Your task to perform on an android device: Add "logitech g933" to the cart on walmart Image 0: 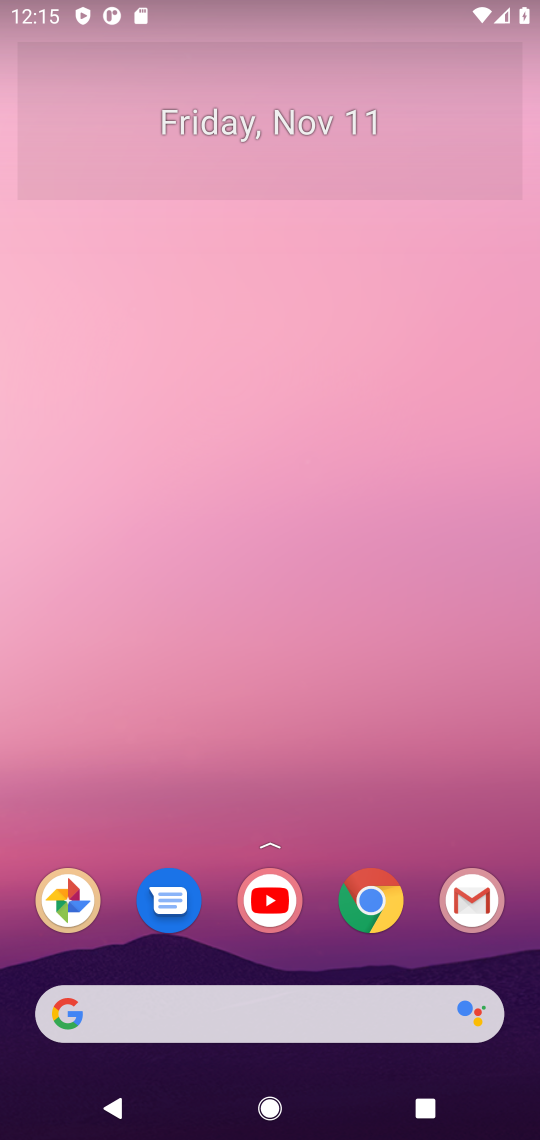
Step 0: click (369, 905)
Your task to perform on an android device: Add "logitech g933" to the cart on walmart Image 1: 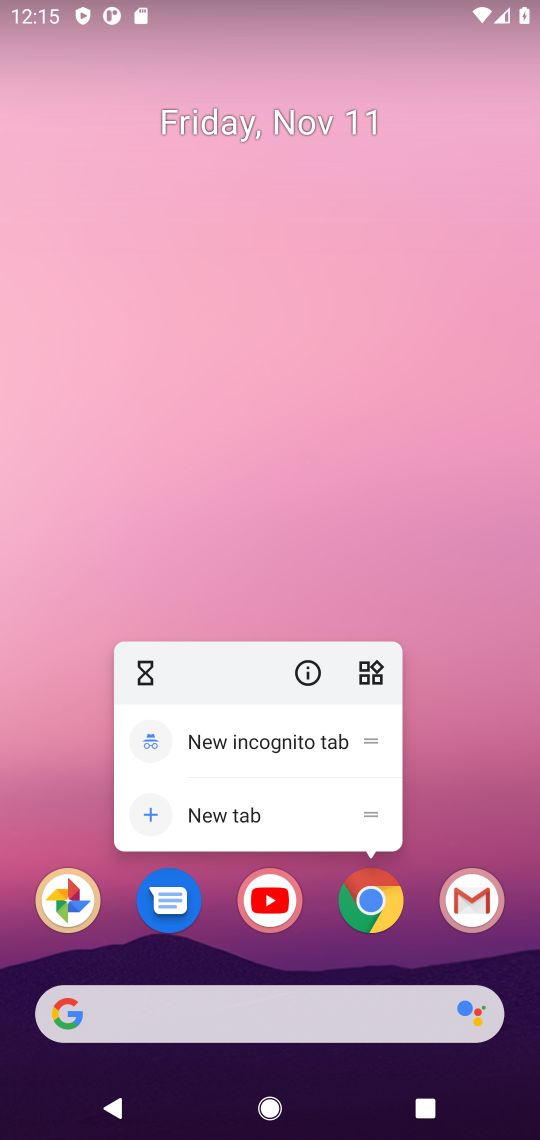
Step 1: click (369, 905)
Your task to perform on an android device: Add "logitech g933" to the cart on walmart Image 2: 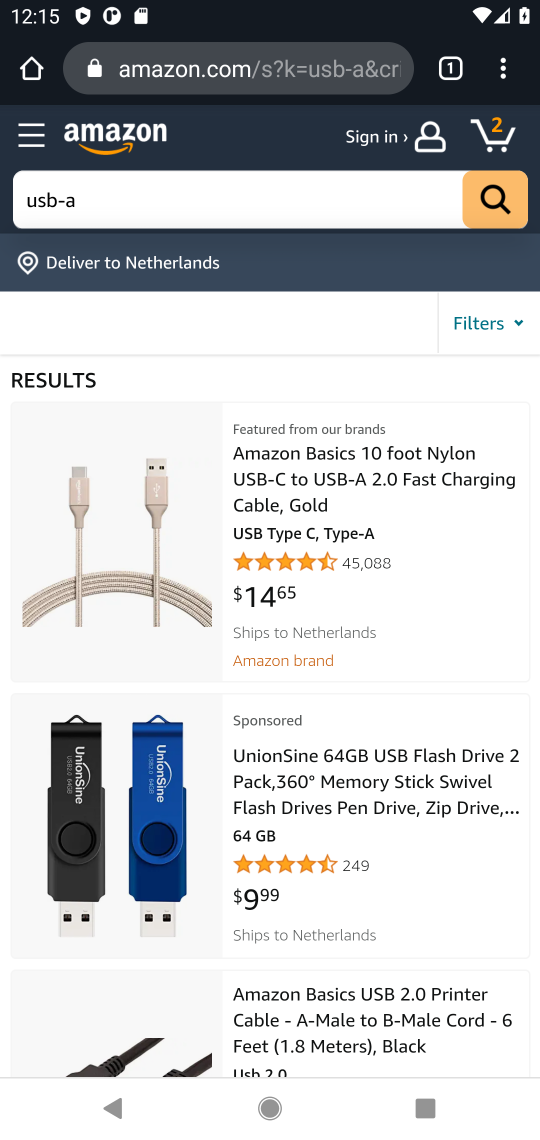
Step 2: click (315, 67)
Your task to perform on an android device: Add "logitech g933" to the cart on walmart Image 3: 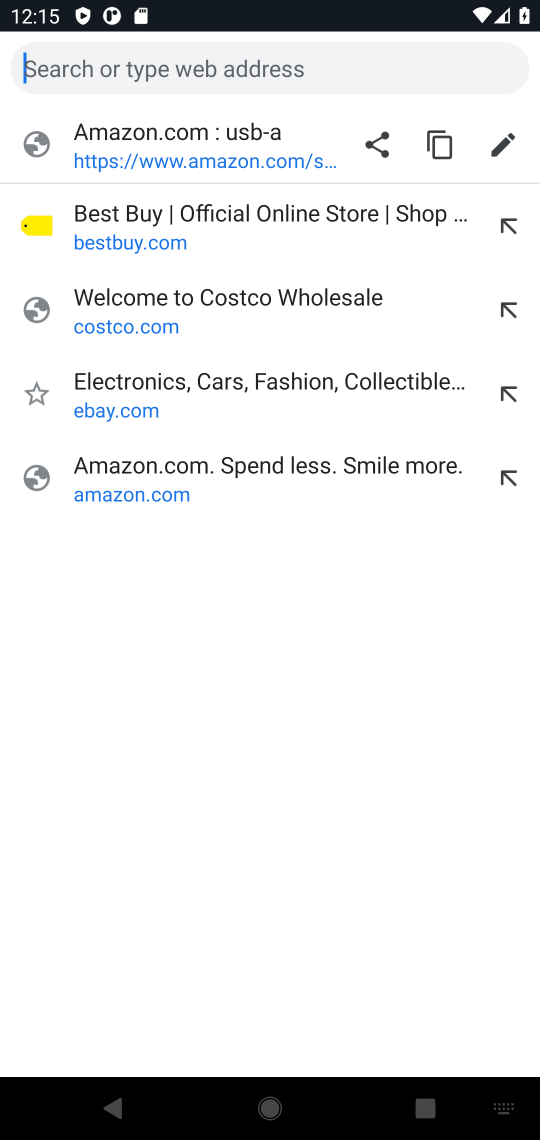
Step 3: type "walmart"
Your task to perform on an android device: Add "logitech g933" to the cart on walmart Image 4: 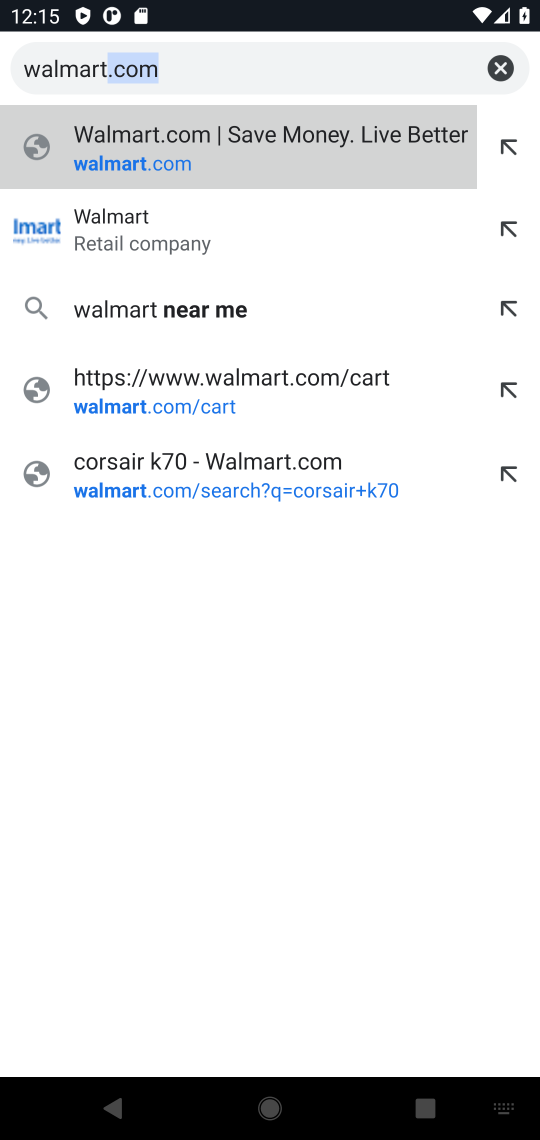
Step 4: press enter
Your task to perform on an android device: Add "logitech g933" to the cart on walmart Image 5: 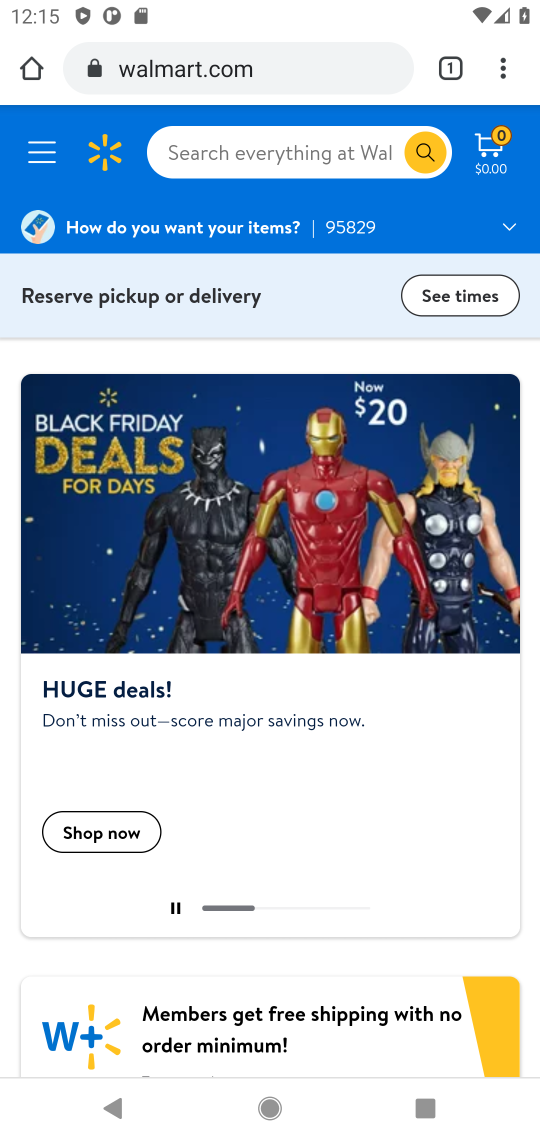
Step 5: click (311, 145)
Your task to perform on an android device: Add "logitech g933" to the cart on walmart Image 6: 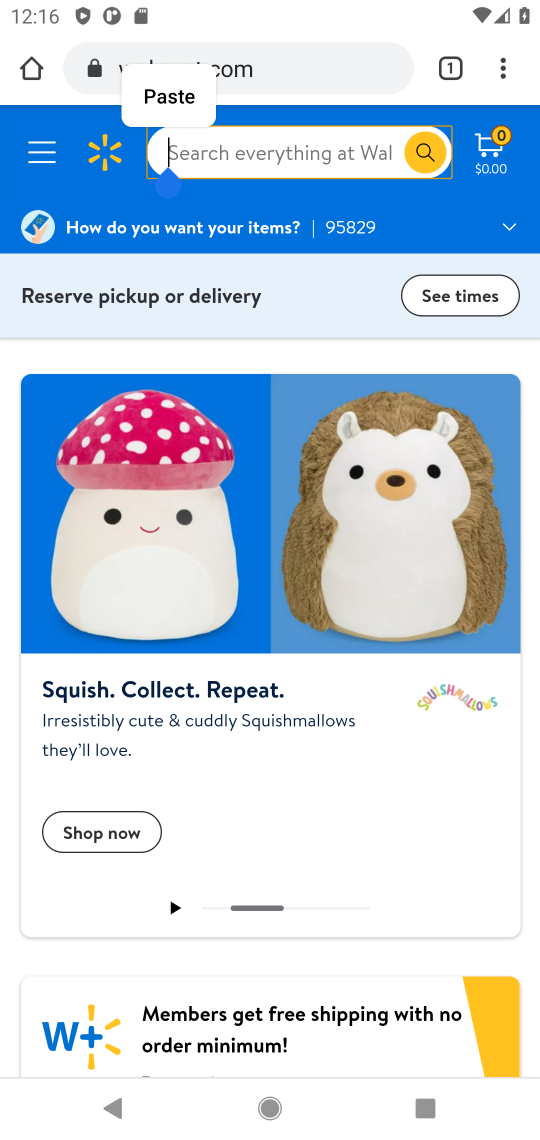
Step 6: type "logitech g933"
Your task to perform on an android device: Add "logitech g933" to the cart on walmart Image 7: 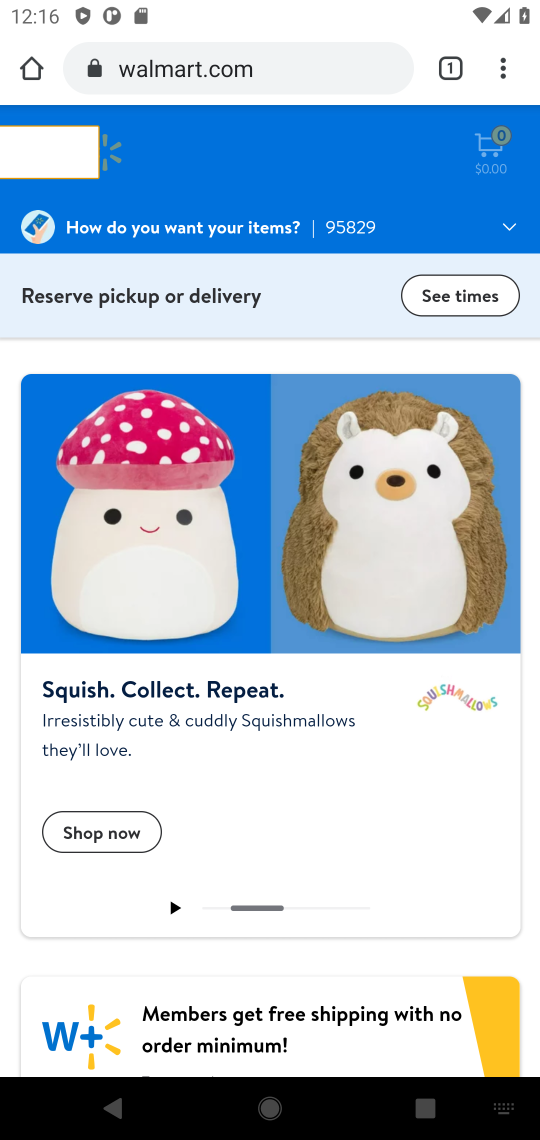
Step 7: press enter
Your task to perform on an android device: Add "logitech g933" to the cart on walmart Image 8: 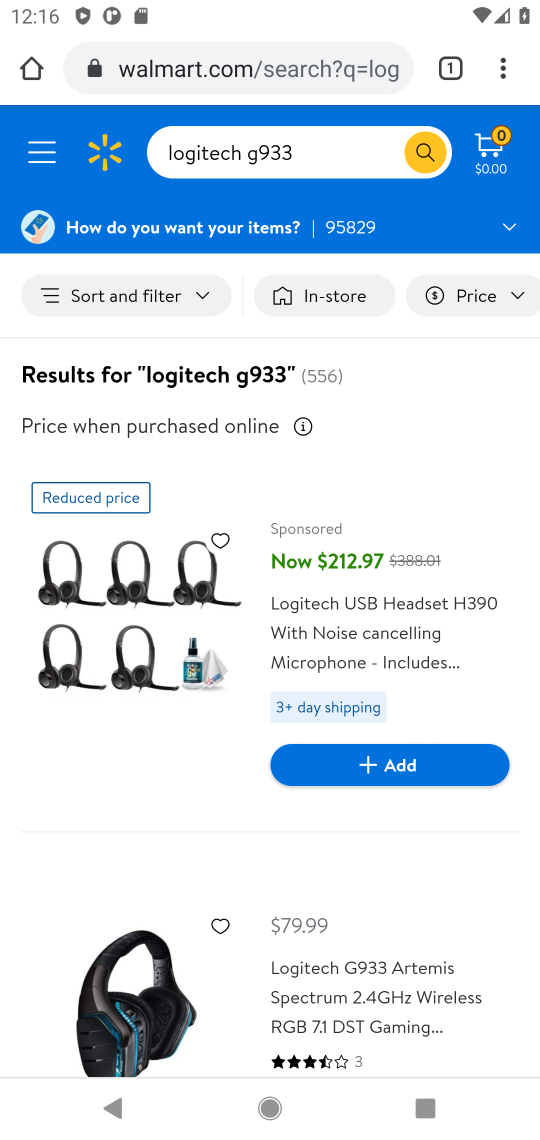
Step 8: drag from (214, 959) to (267, 541)
Your task to perform on an android device: Add "logitech g933" to the cart on walmart Image 9: 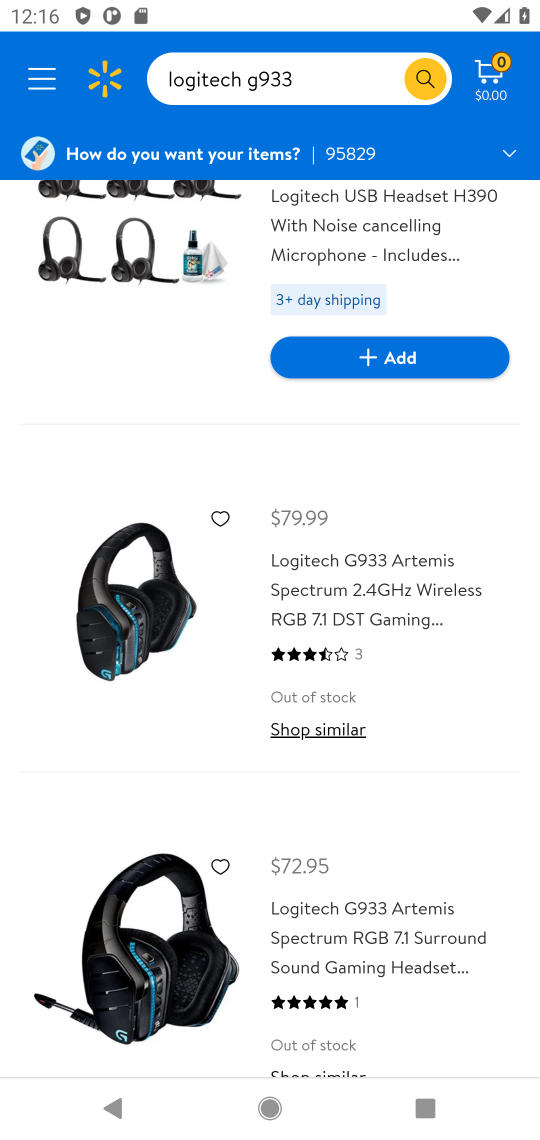
Step 9: click (348, 599)
Your task to perform on an android device: Add "logitech g933" to the cart on walmart Image 10: 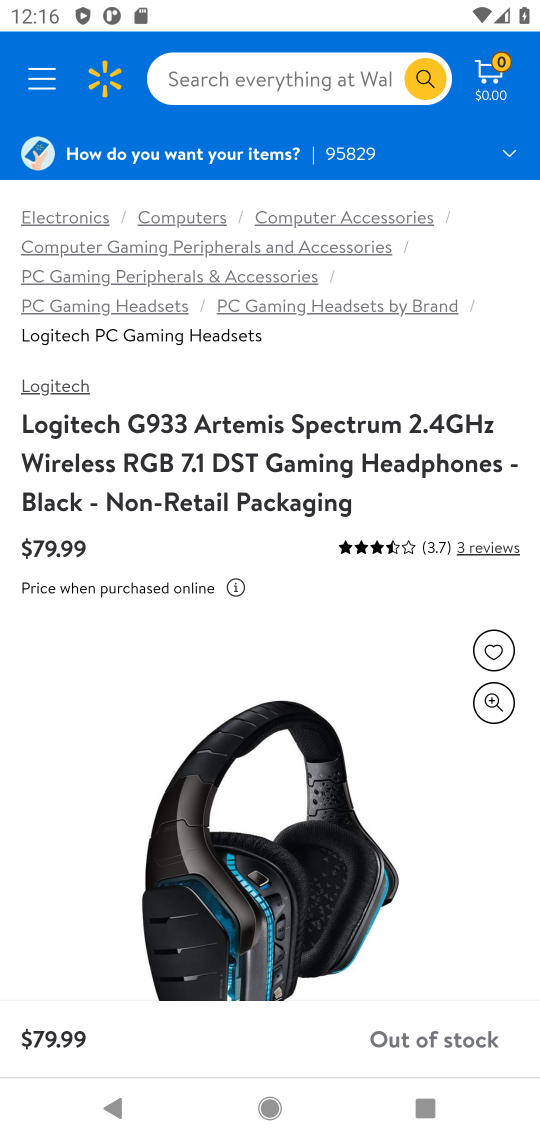
Step 10: task complete